Your task to perform on an android device: open chrome and create a bookmark for the current page Image 0: 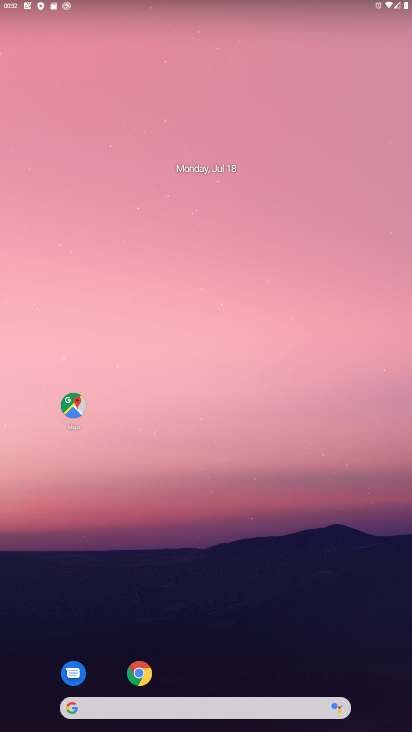
Step 0: click (145, 673)
Your task to perform on an android device: open chrome and create a bookmark for the current page Image 1: 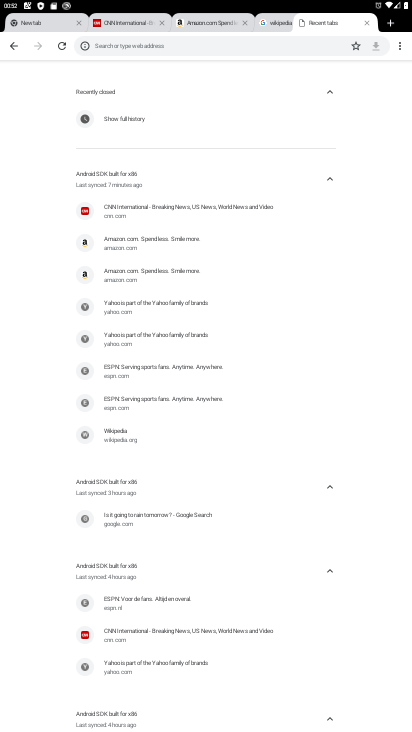
Step 1: click (272, 26)
Your task to perform on an android device: open chrome and create a bookmark for the current page Image 2: 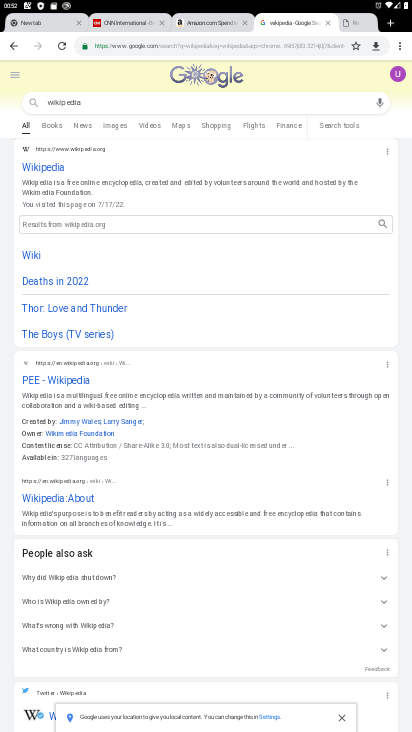
Step 2: click (119, 25)
Your task to perform on an android device: open chrome and create a bookmark for the current page Image 3: 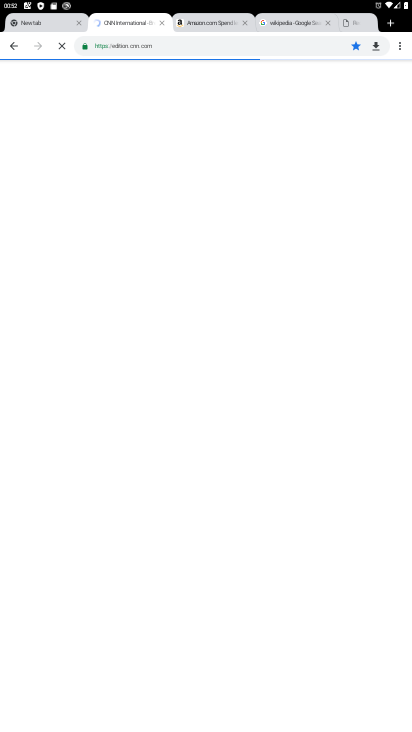
Step 3: click (47, 23)
Your task to perform on an android device: open chrome and create a bookmark for the current page Image 4: 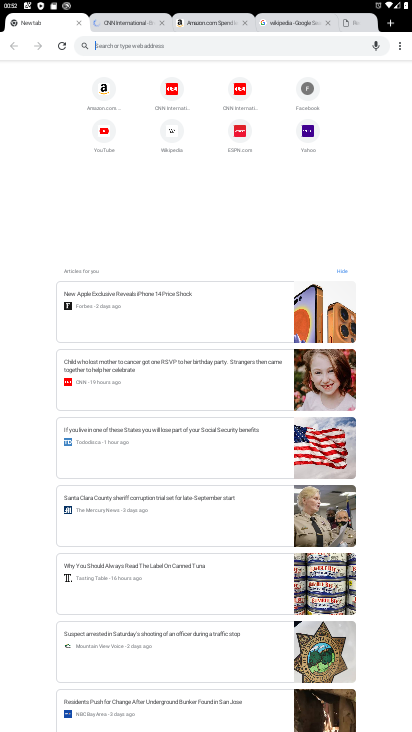
Step 4: click (110, 96)
Your task to perform on an android device: open chrome and create a bookmark for the current page Image 5: 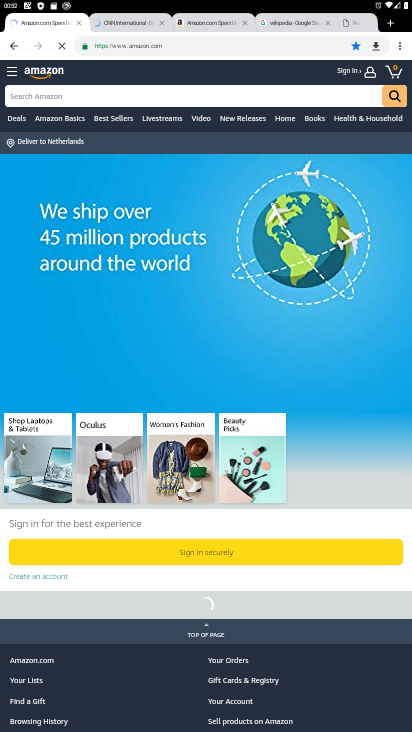
Step 5: click (358, 25)
Your task to perform on an android device: open chrome and create a bookmark for the current page Image 6: 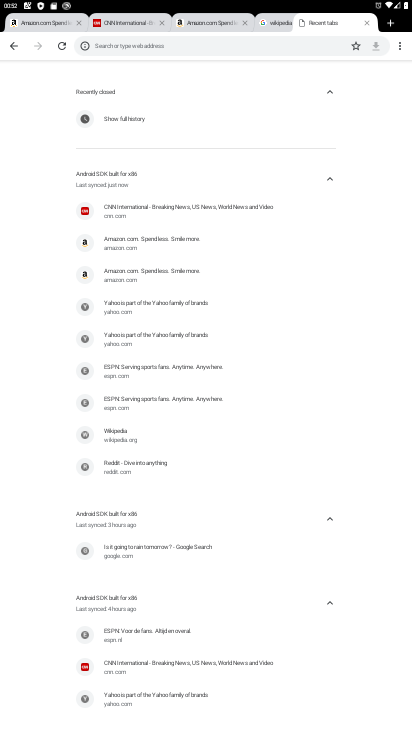
Step 6: click (154, 533)
Your task to perform on an android device: open chrome and create a bookmark for the current page Image 7: 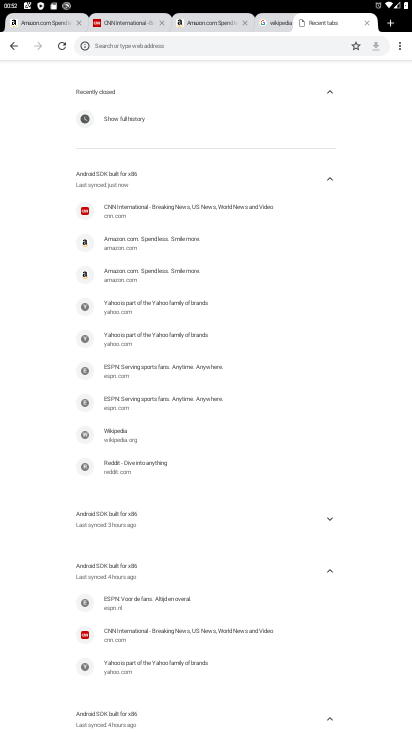
Step 7: task complete